Your task to perform on an android device: Set the phone to "Do not disturb". Image 0: 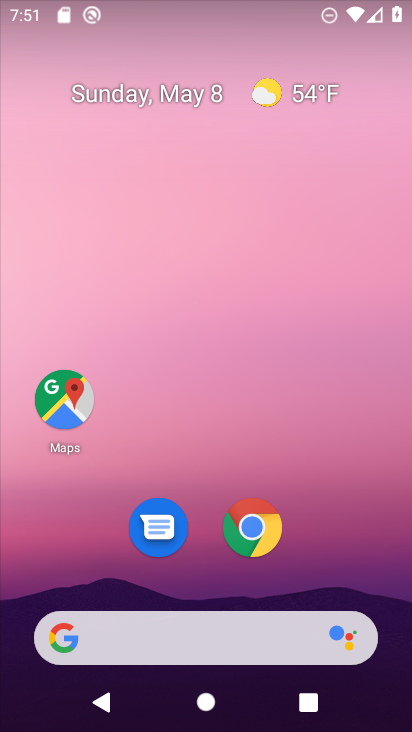
Step 0: drag from (267, 8) to (263, 450)
Your task to perform on an android device: Set the phone to "Do not disturb". Image 1: 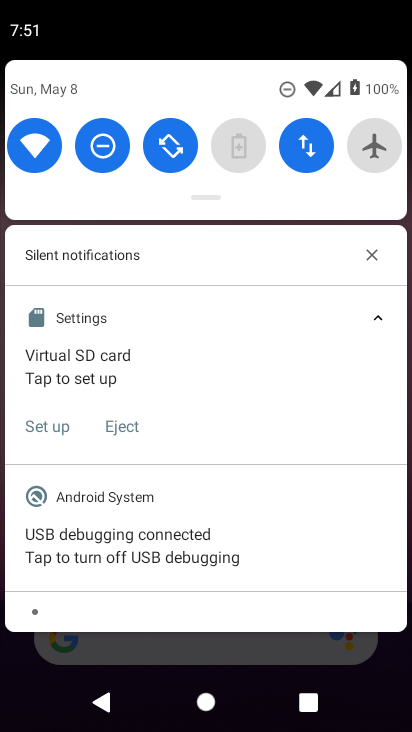
Step 1: task complete